Your task to perform on an android device: turn off data saver in the chrome app Image 0: 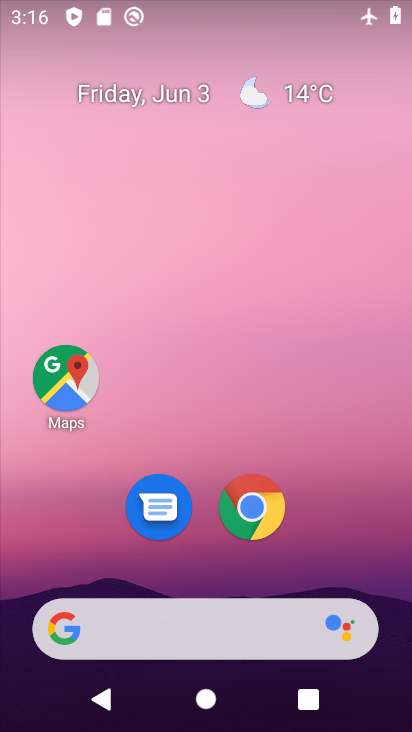
Step 0: click (258, 515)
Your task to perform on an android device: turn off data saver in the chrome app Image 1: 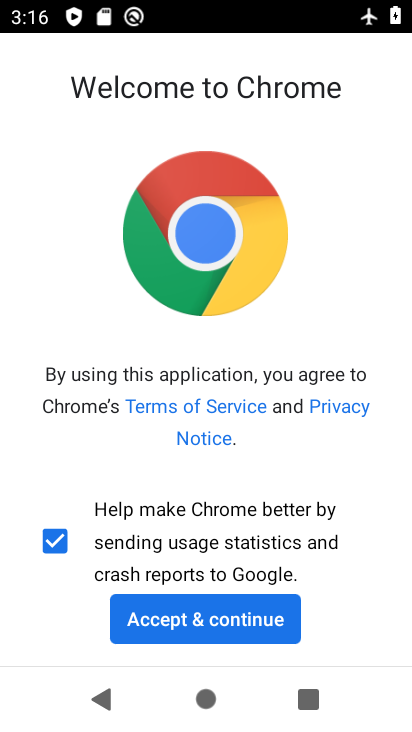
Step 1: click (196, 613)
Your task to perform on an android device: turn off data saver in the chrome app Image 2: 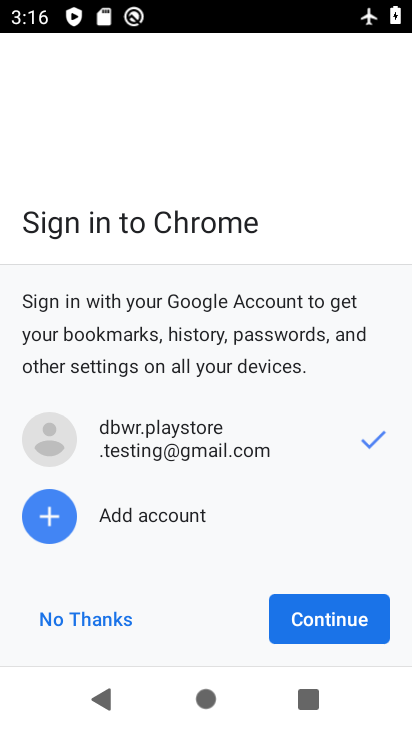
Step 2: click (329, 626)
Your task to perform on an android device: turn off data saver in the chrome app Image 3: 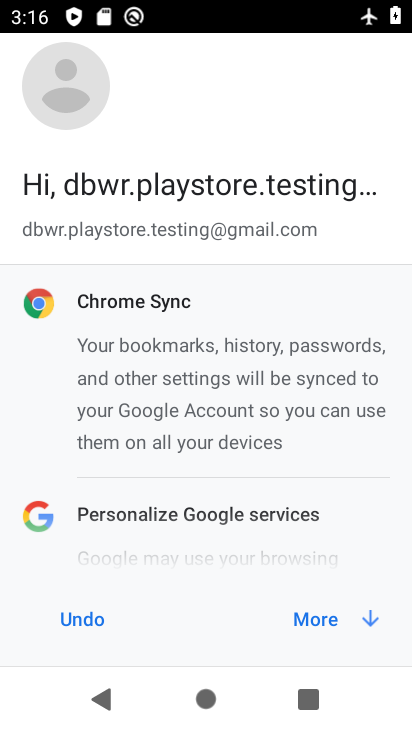
Step 3: click (327, 624)
Your task to perform on an android device: turn off data saver in the chrome app Image 4: 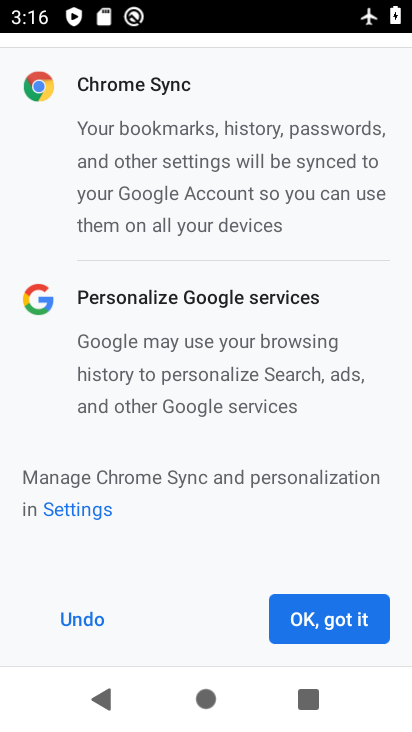
Step 4: click (346, 620)
Your task to perform on an android device: turn off data saver in the chrome app Image 5: 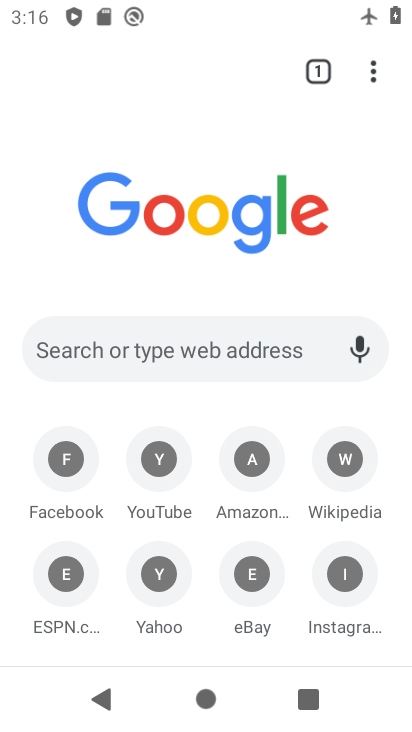
Step 5: click (368, 68)
Your task to perform on an android device: turn off data saver in the chrome app Image 6: 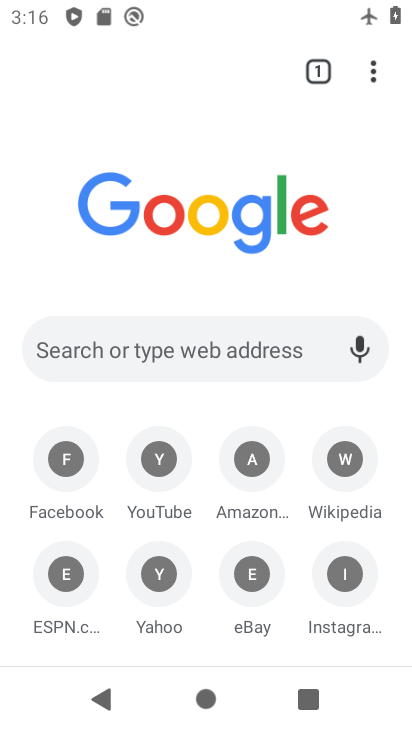
Step 6: drag from (371, 71) to (243, 496)
Your task to perform on an android device: turn off data saver in the chrome app Image 7: 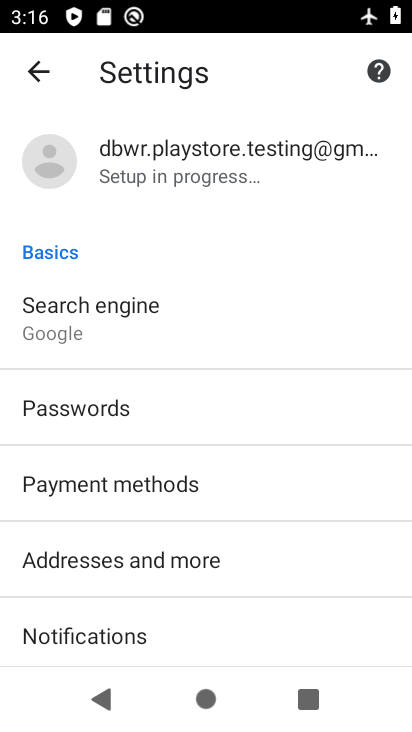
Step 7: drag from (291, 647) to (253, 160)
Your task to perform on an android device: turn off data saver in the chrome app Image 8: 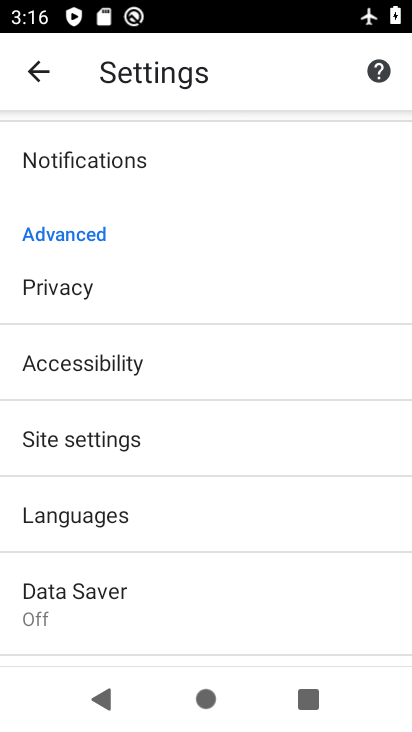
Step 8: click (201, 611)
Your task to perform on an android device: turn off data saver in the chrome app Image 9: 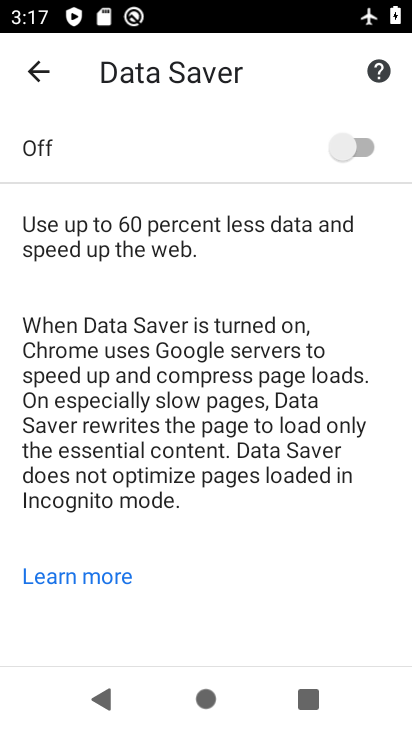
Step 9: click (37, 68)
Your task to perform on an android device: turn off data saver in the chrome app Image 10: 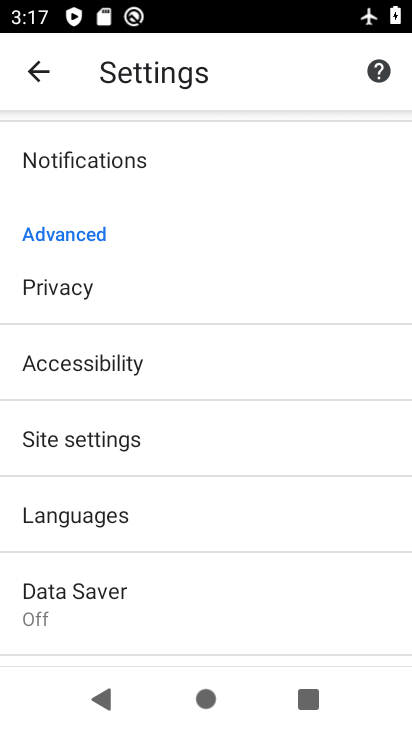
Step 10: drag from (305, 619) to (253, 270)
Your task to perform on an android device: turn off data saver in the chrome app Image 11: 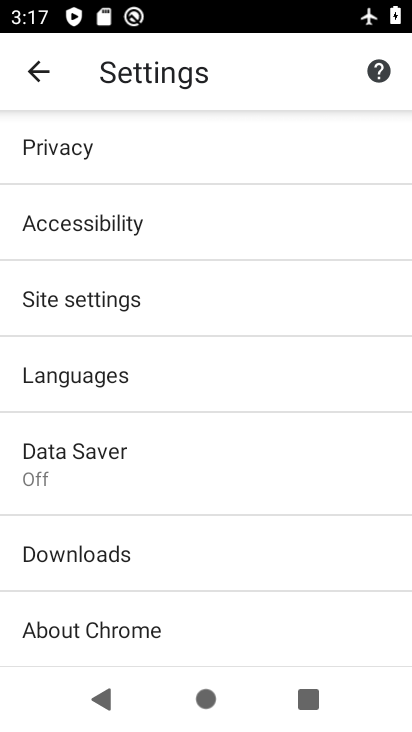
Step 11: click (208, 484)
Your task to perform on an android device: turn off data saver in the chrome app Image 12: 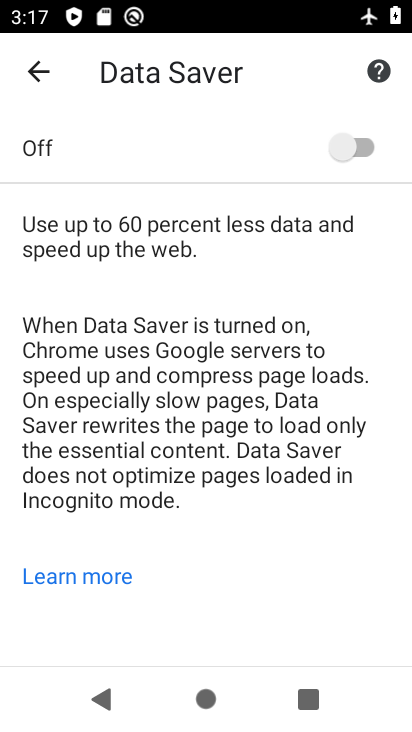
Step 12: task complete